Your task to perform on an android device: uninstall "Etsy: Buy & Sell Unique Items" Image 0: 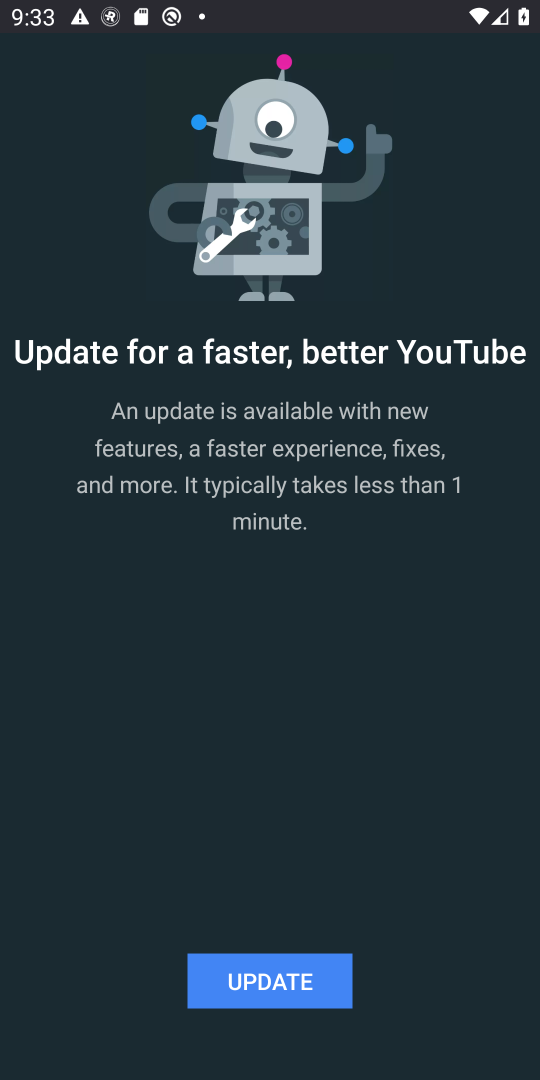
Step 0: press home button
Your task to perform on an android device: uninstall "Etsy: Buy & Sell Unique Items" Image 1: 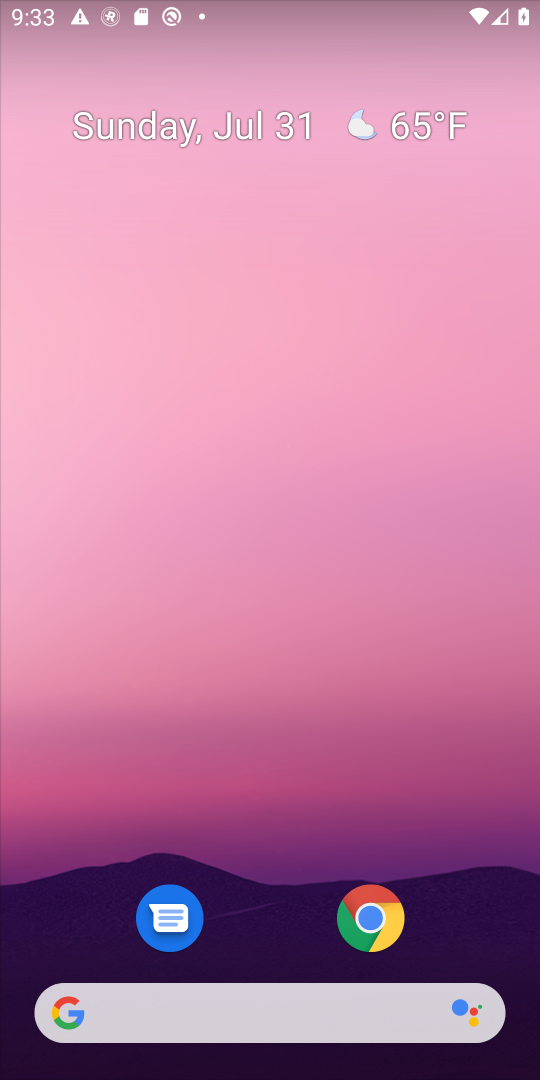
Step 1: drag from (119, 1059) to (322, 5)
Your task to perform on an android device: uninstall "Etsy: Buy & Sell Unique Items" Image 2: 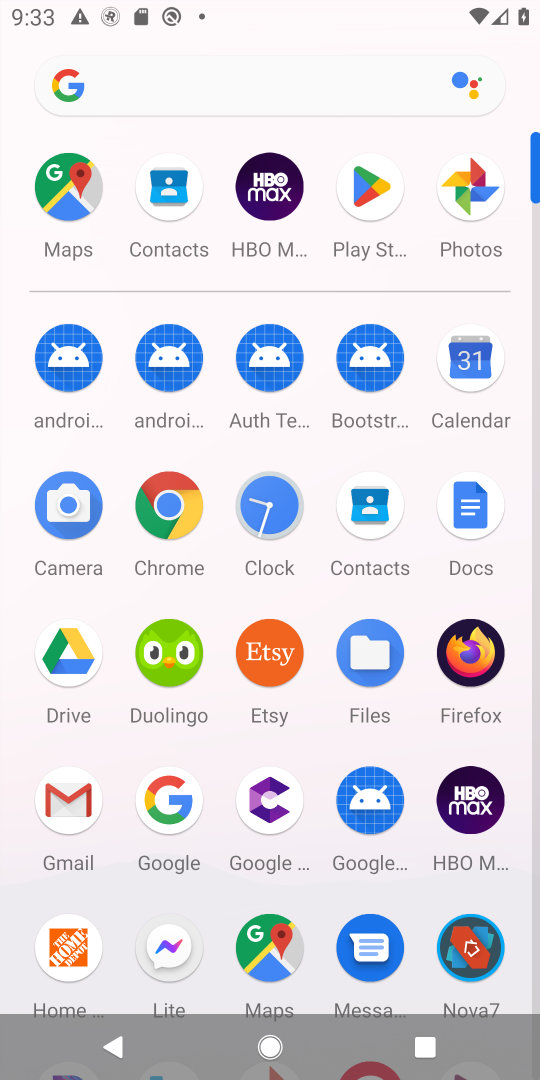
Step 2: click (363, 193)
Your task to perform on an android device: uninstall "Etsy: Buy & Sell Unique Items" Image 3: 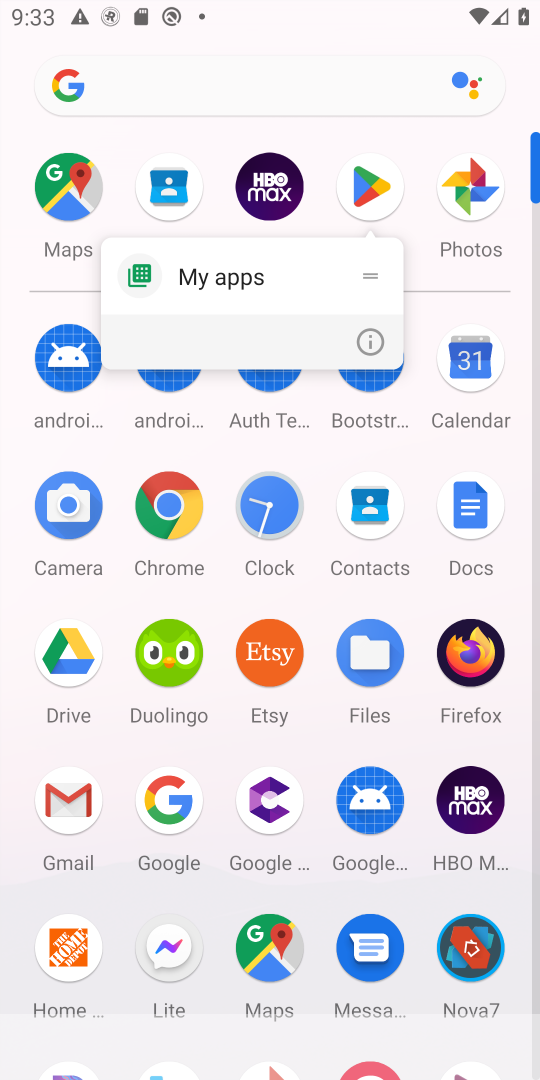
Step 3: click (384, 199)
Your task to perform on an android device: uninstall "Etsy: Buy & Sell Unique Items" Image 4: 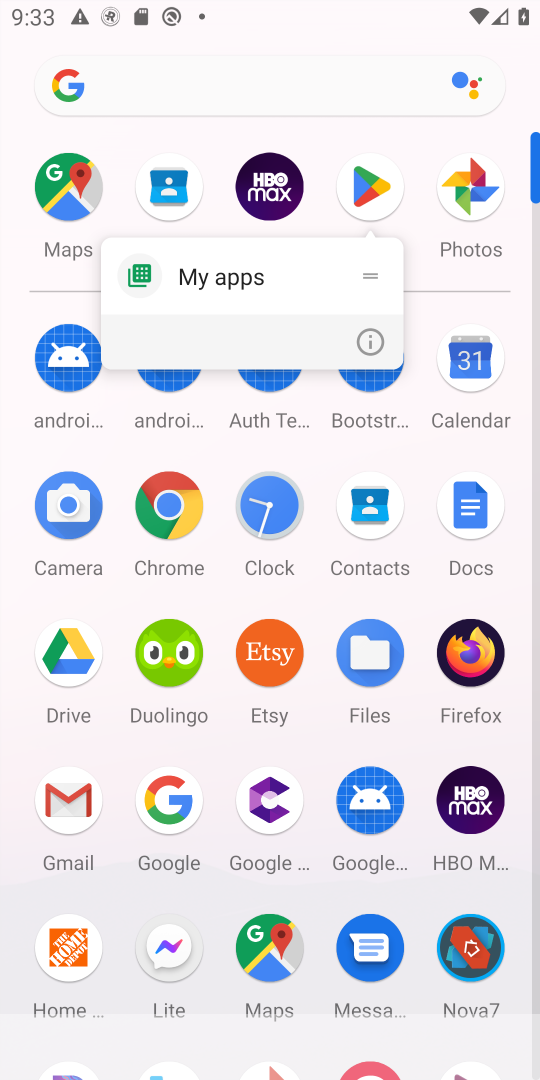
Step 4: click (385, 200)
Your task to perform on an android device: uninstall "Etsy: Buy & Sell Unique Items" Image 5: 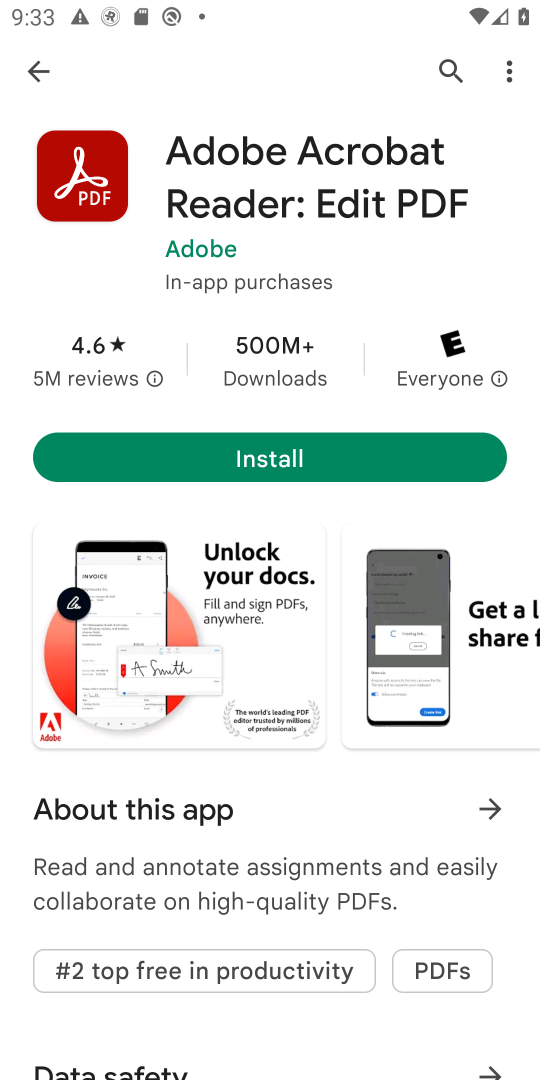
Step 5: click (454, 63)
Your task to perform on an android device: uninstall "Etsy: Buy & Sell Unique Items" Image 6: 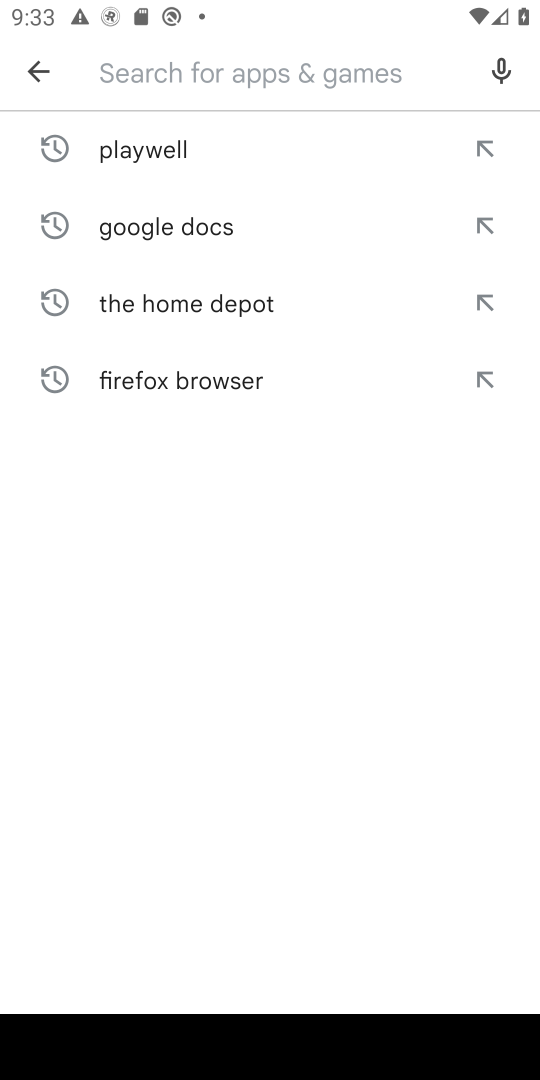
Step 6: type "Etsy: Buy & Sell Unique Items"
Your task to perform on an android device: uninstall "Etsy: Buy & Sell Unique Items" Image 7: 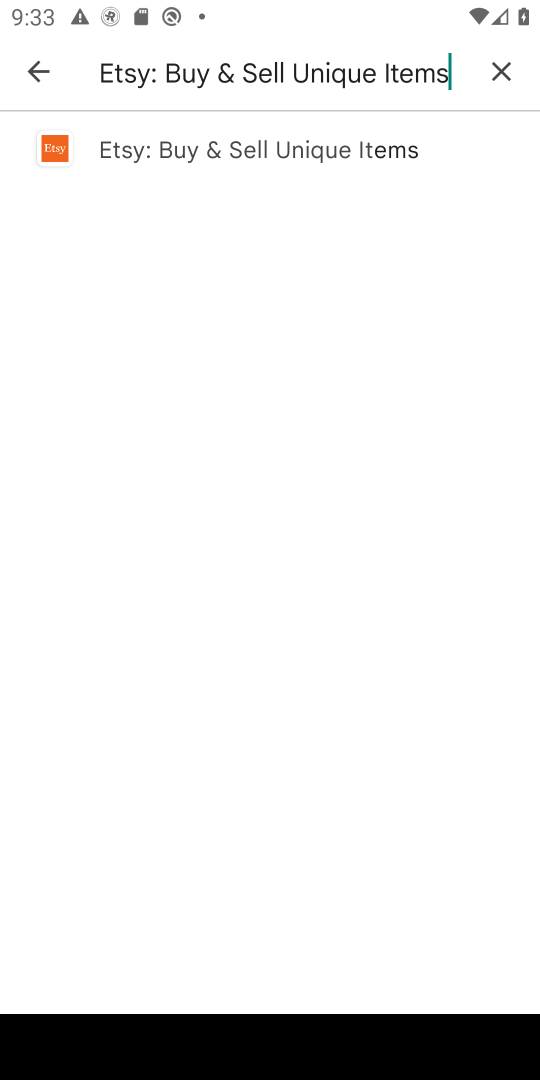
Step 7: type ""
Your task to perform on an android device: uninstall "Etsy: Buy & Sell Unique Items" Image 8: 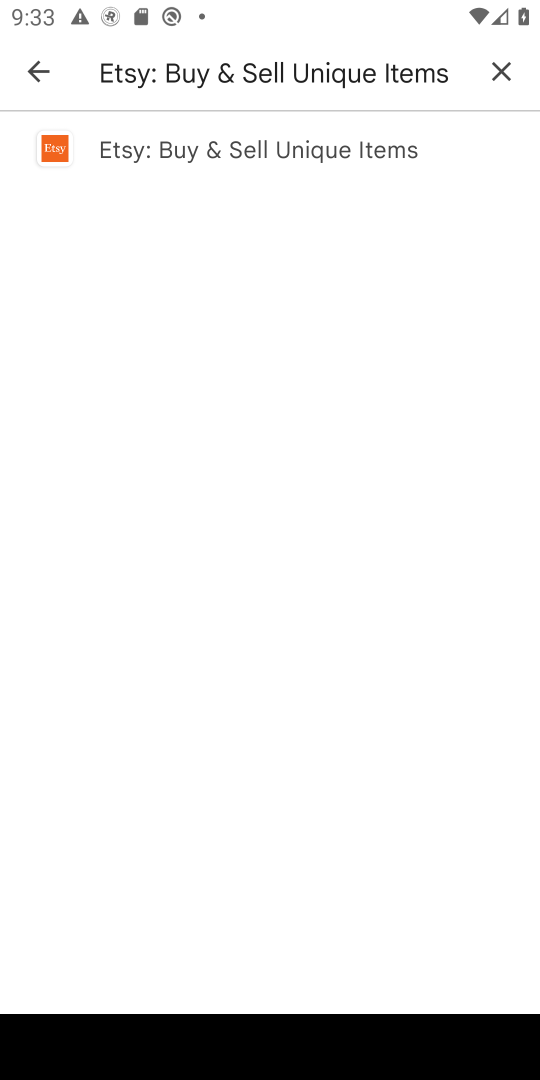
Step 8: click (362, 157)
Your task to perform on an android device: uninstall "Etsy: Buy & Sell Unique Items" Image 9: 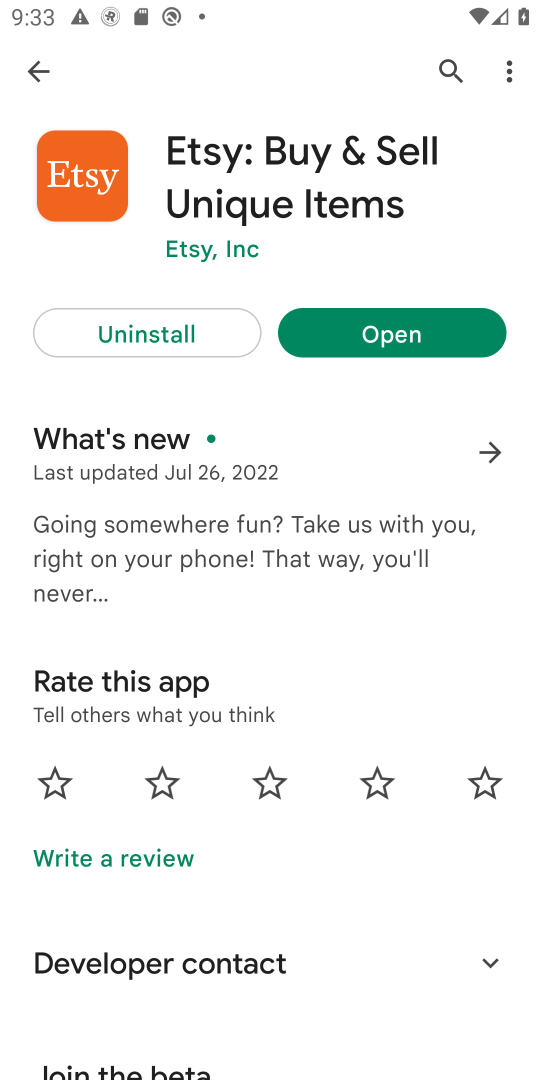
Step 9: click (137, 325)
Your task to perform on an android device: uninstall "Etsy: Buy & Sell Unique Items" Image 10: 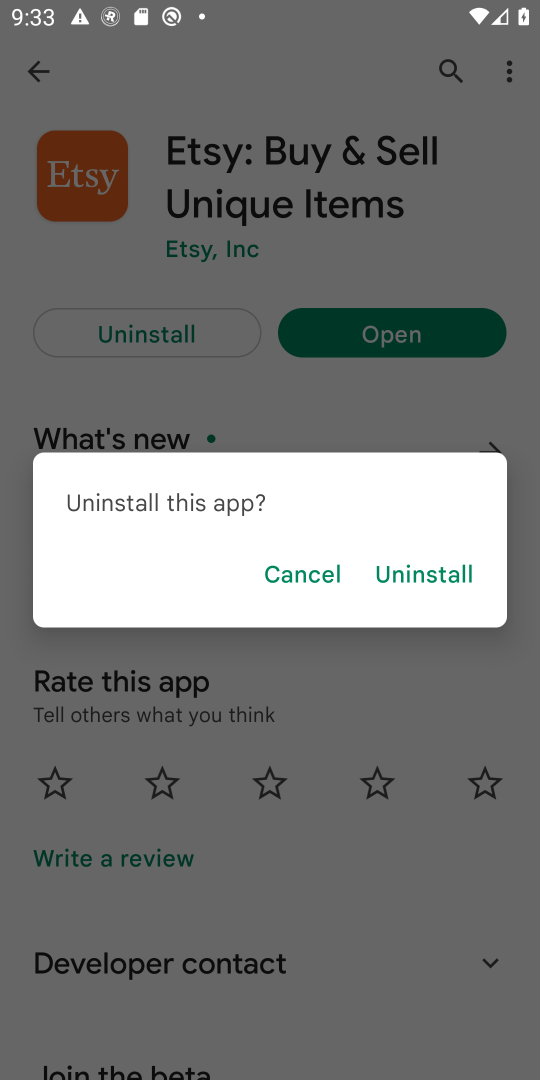
Step 10: click (464, 569)
Your task to perform on an android device: uninstall "Etsy: Buy & Sell Unique Items" Image 11: 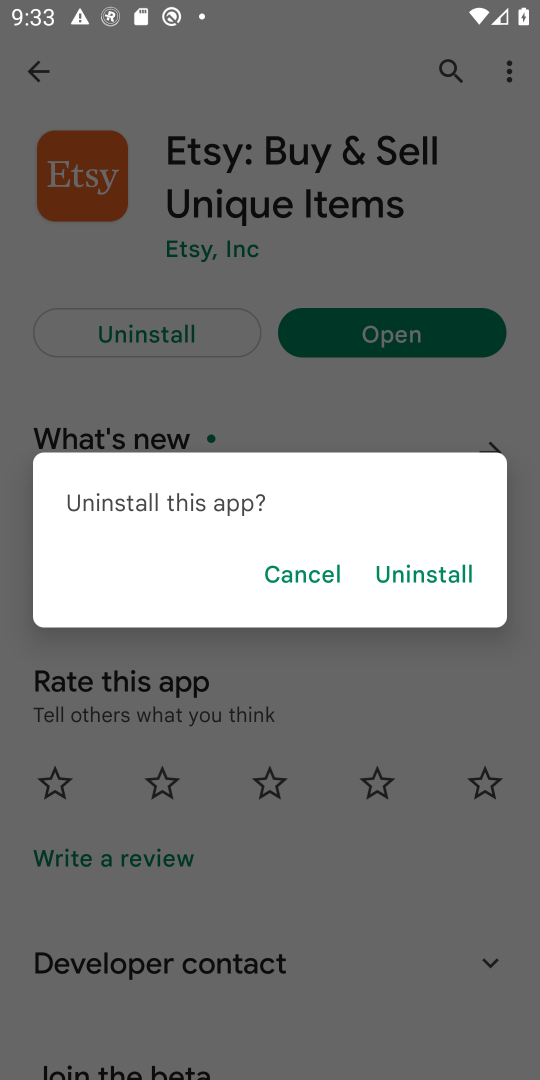
Step 11: click (464, 574)
Your task to perform on an android device: uninstall "Etsy: Buy & Sell Unique Items" Image 12: 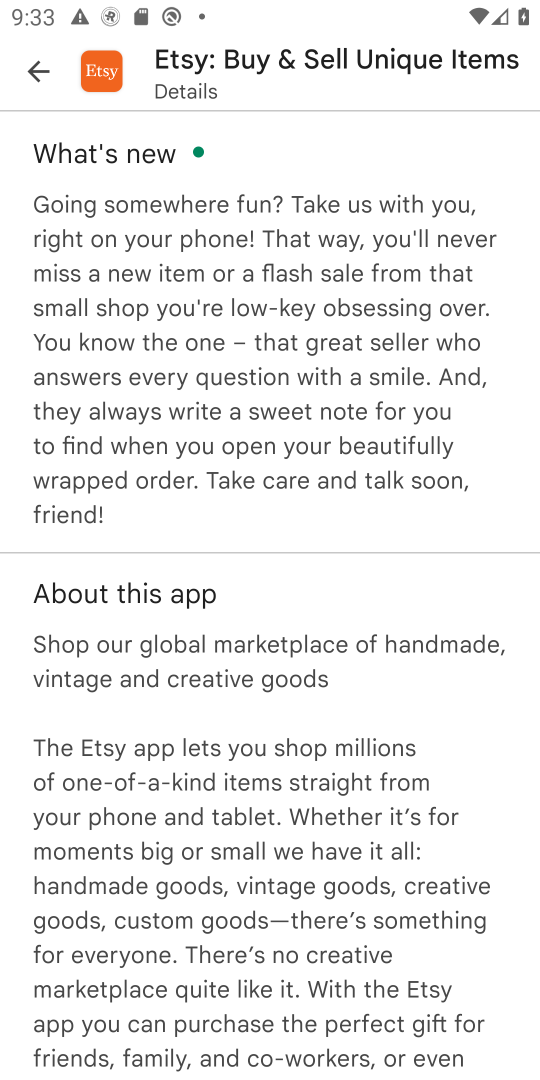
Step 12: task complete